Your task to perform on an android device: Open Amazon Image 0: 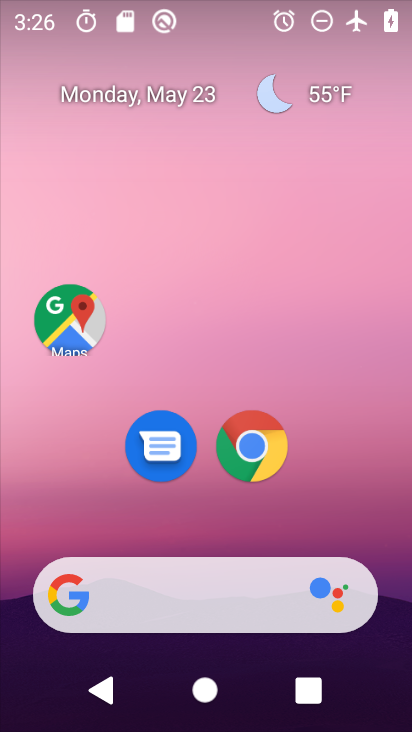
Step 0: click (260, 434)
Your task to perform on an android device: Open Amazon Image 1: 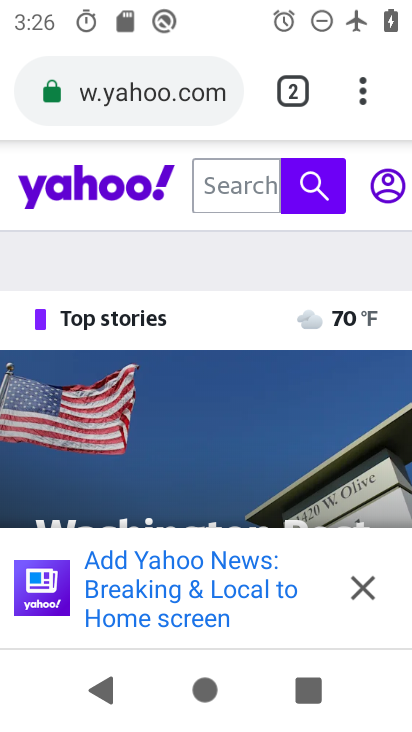
Step 1: click (286, 93)
Your task to perform on an android device: Open Amazon Image 2: 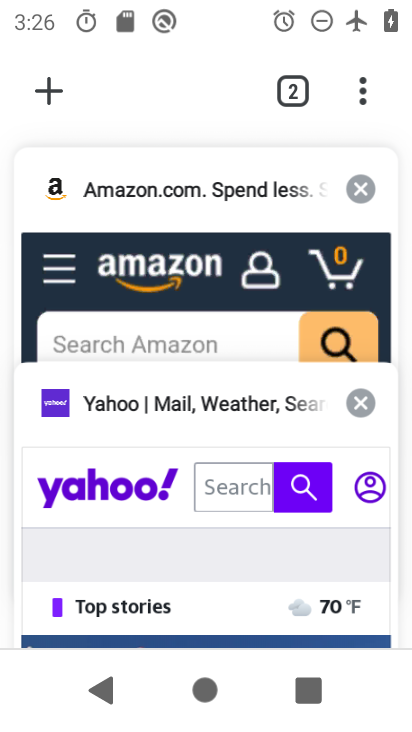
Step 2: click (174, 260)
Your task to perform on an android device: Open Amazon Image 3: 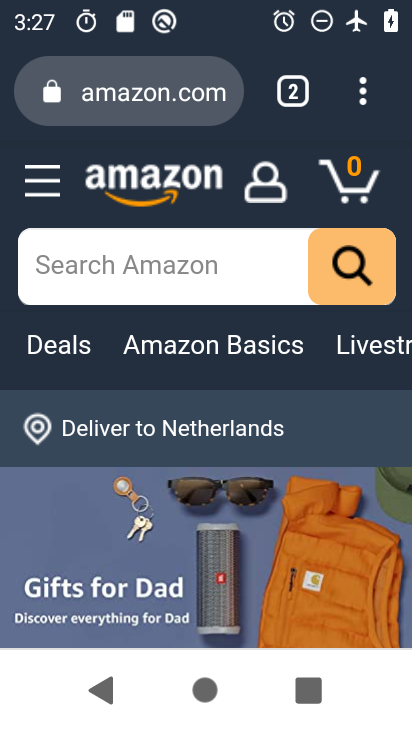
Step 3: task complete